Your task to perform on an android device: add a label to a message in the gmail app Image 0: 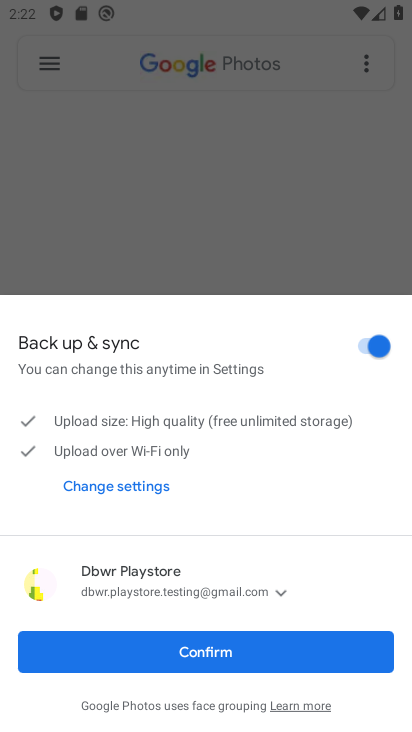
Step 0: press home button
Your task to perform on an android device: add a label to a message in the gmail app Image 1: 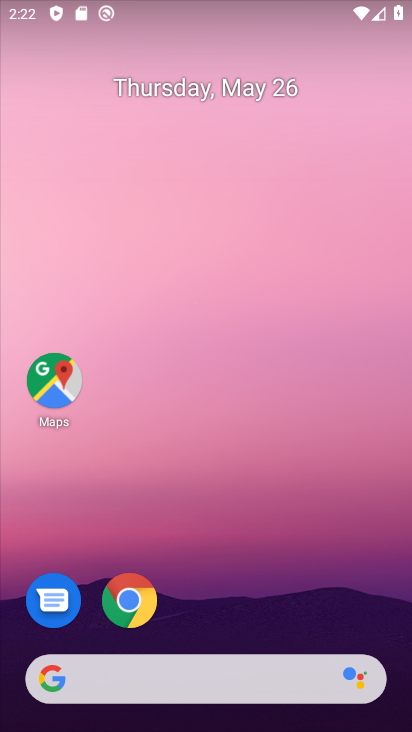
Step 1: drag from (196, 656) to (285, 120)
Your task to perform on an android device: add a label to a message in the gmail app Image 2: 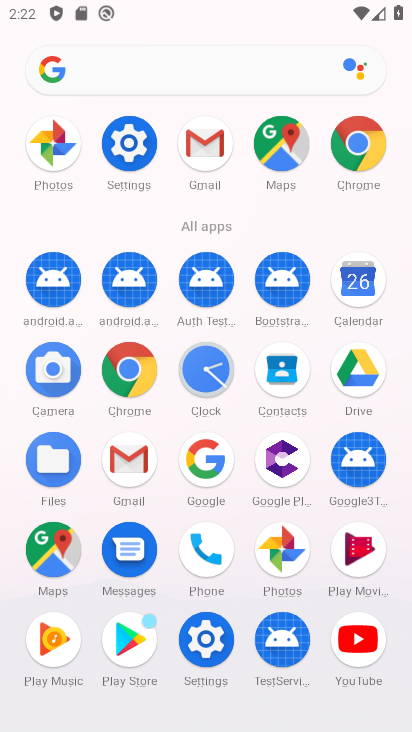
Step 2: click (140, 476)
Your task to perform on an android device: add a label to a message in the gmail app Image 3: 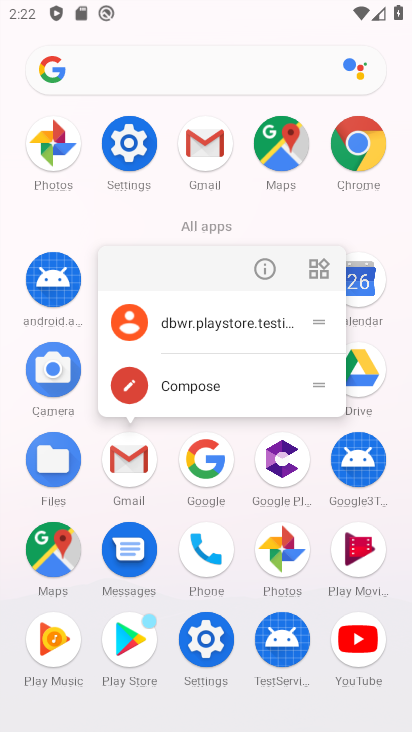
Step 3: click (140, 476)
Your task to perform on an android device: add a label to a message in the gmail app Image 4: 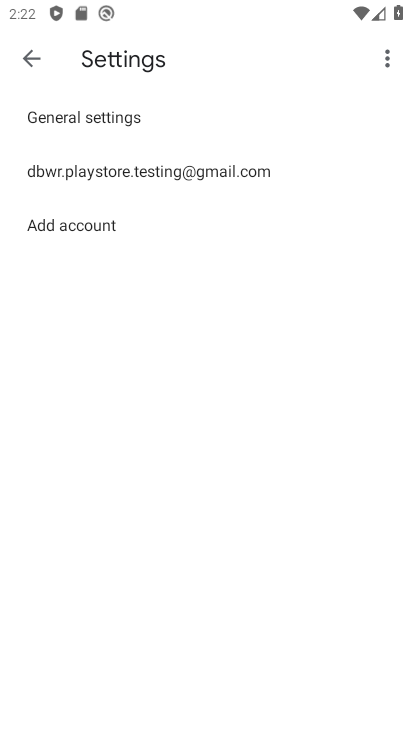
Step 4: click (16, 50)
Your task to perform on an android device: add a label to a message in the gmail app Image 5: 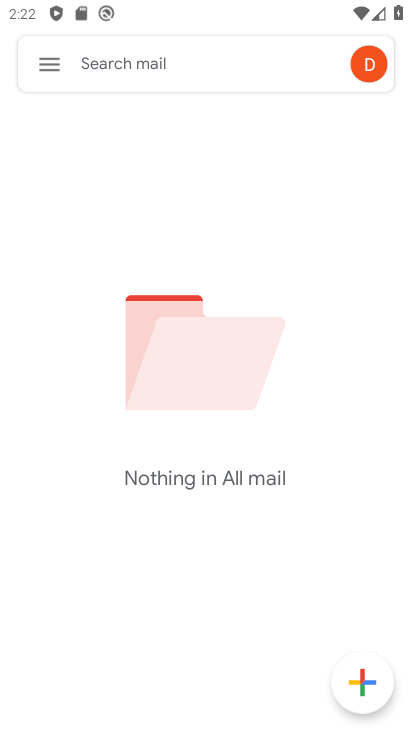
Step 5: click (40, 69)
Your task to perform on an android device: add a label to a message in the gmail app Image 6: 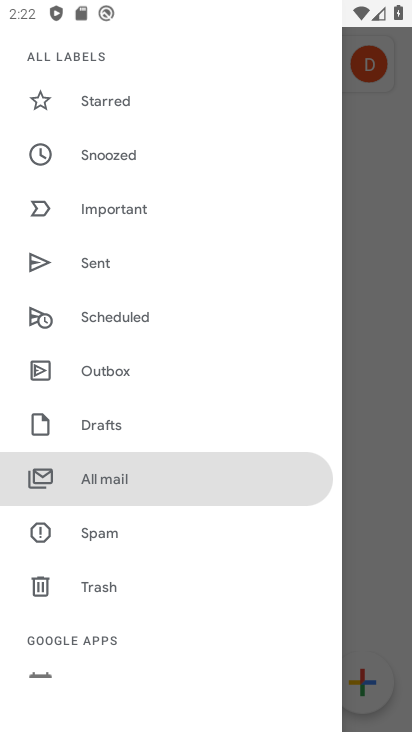
Step 6: task complete